Your task to perform on an android device: Open calendar and show me the first week of next month Image 0: 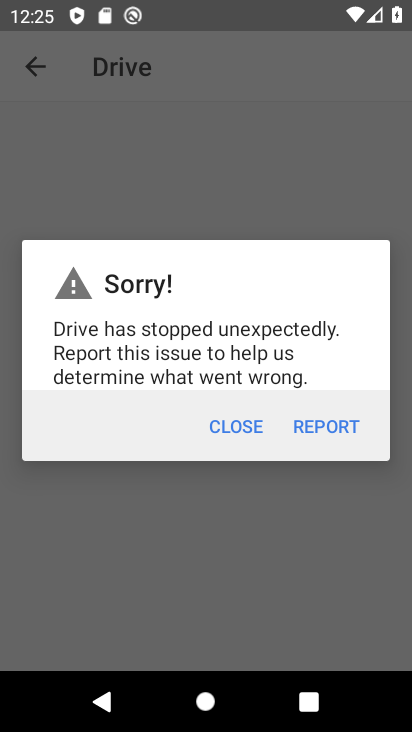
Step 0: press home button
Your task to perform on an android device: Open calendar and show me the first week of next month Image 1: 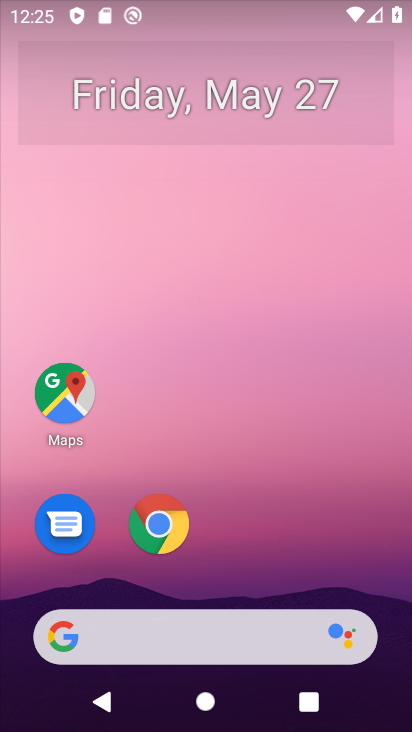
Step 1: drag from (269, 534) to (316, 47)
Your task to perform on an android device: Open calendar and show me the first week of next month Image 2: 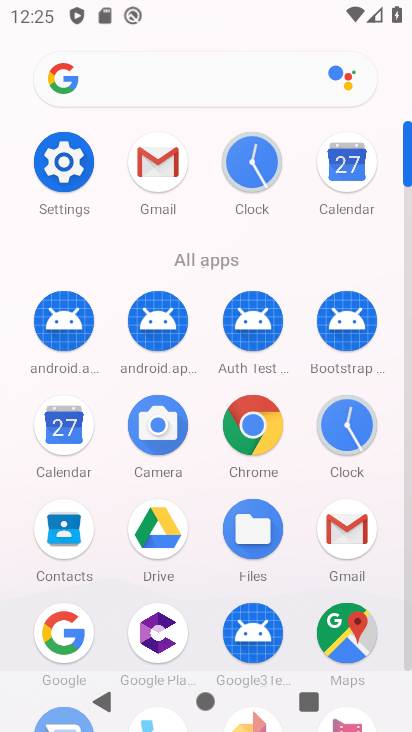
Step 2: click (341, 161)
Your task to perform on an android device: Open calendar and show me the first week of next month Image 3: 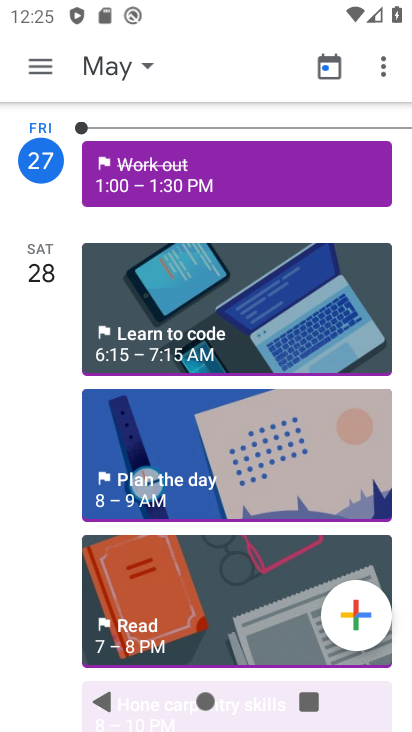
Step 3: click (48, 66)
Your task to perform on an android device: Open calendar and show me the first week of next month Image 4: 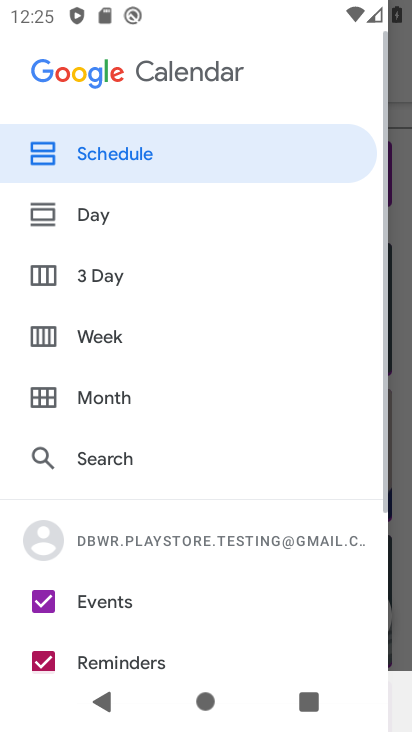
Step 4: click (49, 333)
Your task to perform on an android device: Open calendar and show me the first week of next month Image 5: 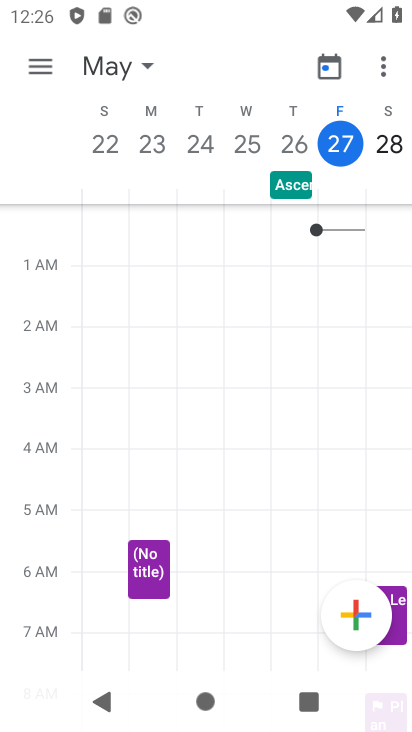
Step 5: task complete